Your task to perform on an android device: Go to sound settings Image 0: 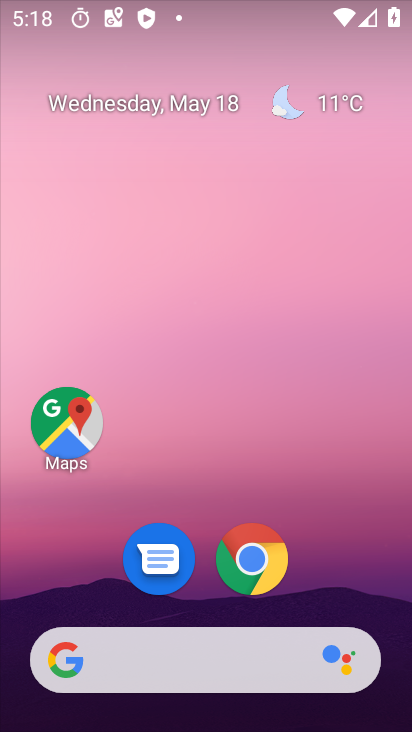
Step 0: drag from (187, 569) to (297, 65)
Your task to perform on an android device: Go to sound settings Image 1: 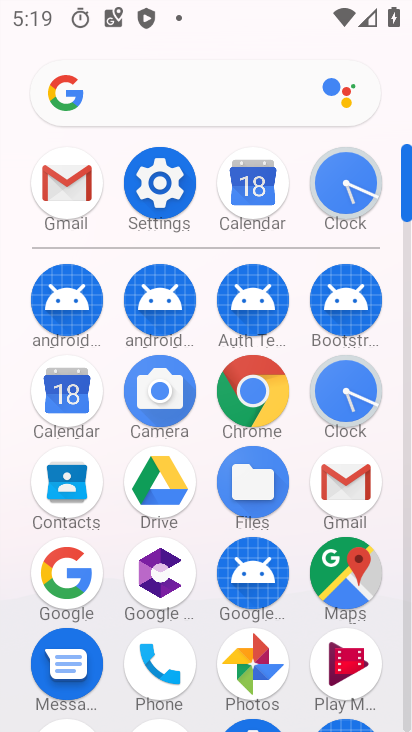
Step 1: click (168, 178)
Your task to perform on an android device: Go to sound settings Image 2: 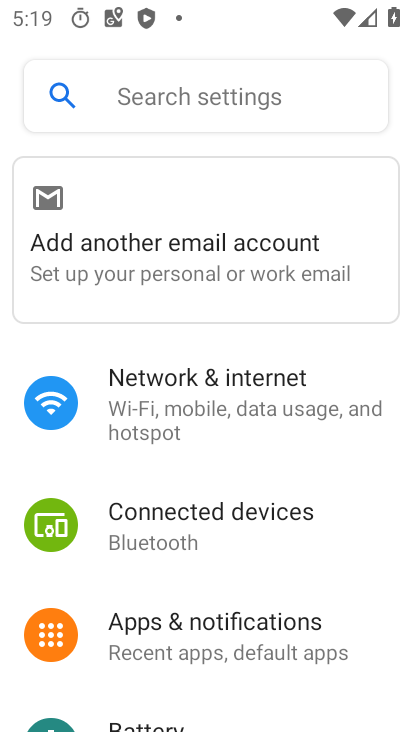
Step 2: drag from (185, 683) to (296, 54)
Your task to perform on an android device: Go to sound settings Image 3: 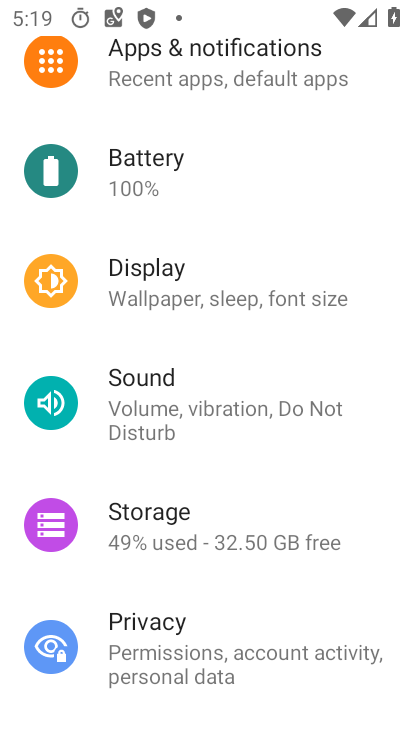
Step 3: click (132, 393)
Your task to perform on an android device: Go to sound settings Image 4: 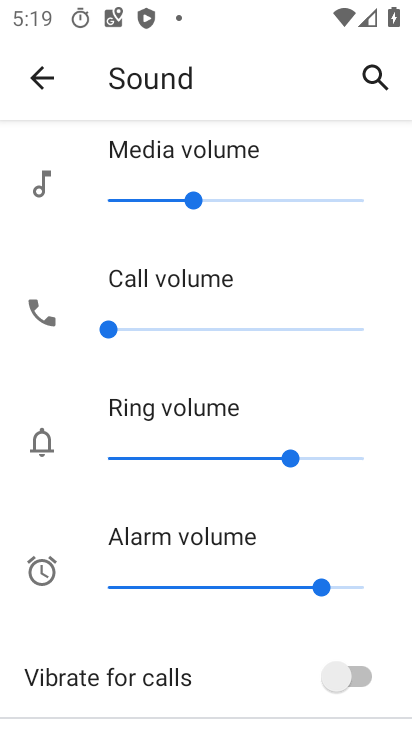
Step 4: task complete